Your task to perform on an android device: Search for sushi restaurants on Maps Image 0: 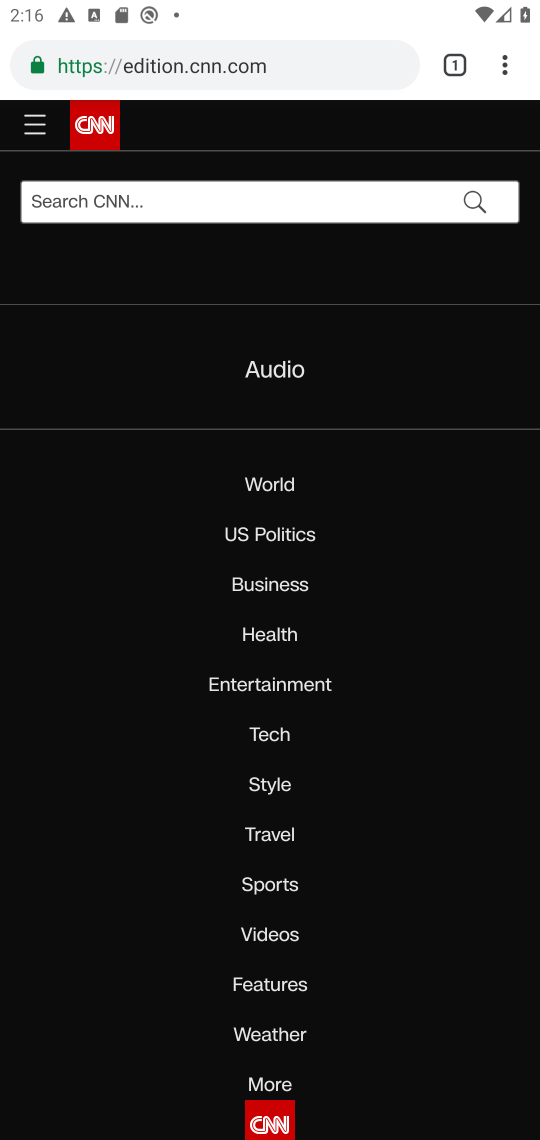
Step 0: press home button
Your task to perform on an android device: Search for sushi restaurants on Maps Image 1: 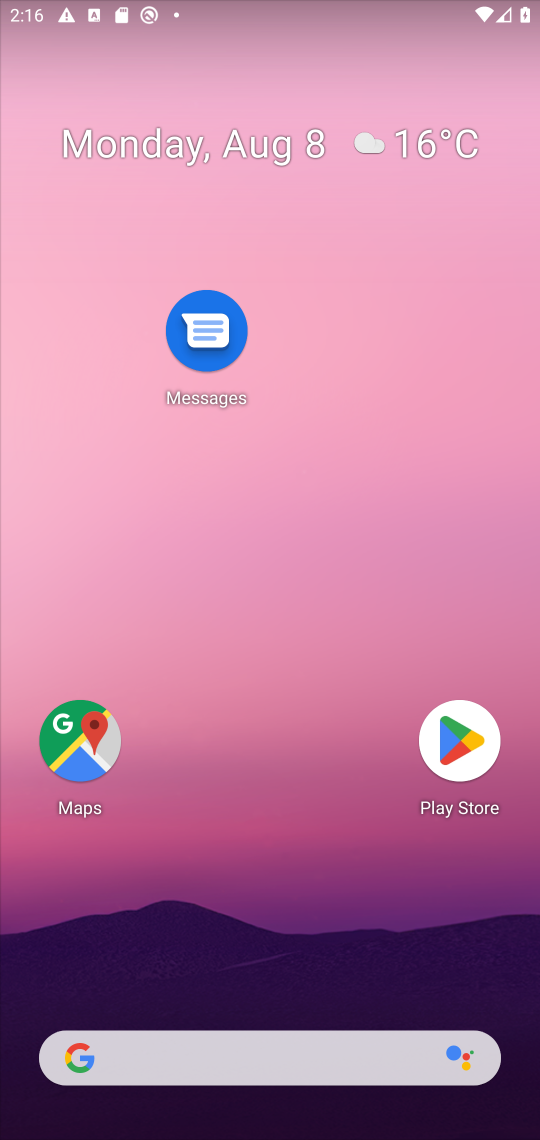
Step 1: drag from (223, 1038) to (362, 209)
Your task to perform on an android device: Search for sushi restaurants on Maps Image 2: 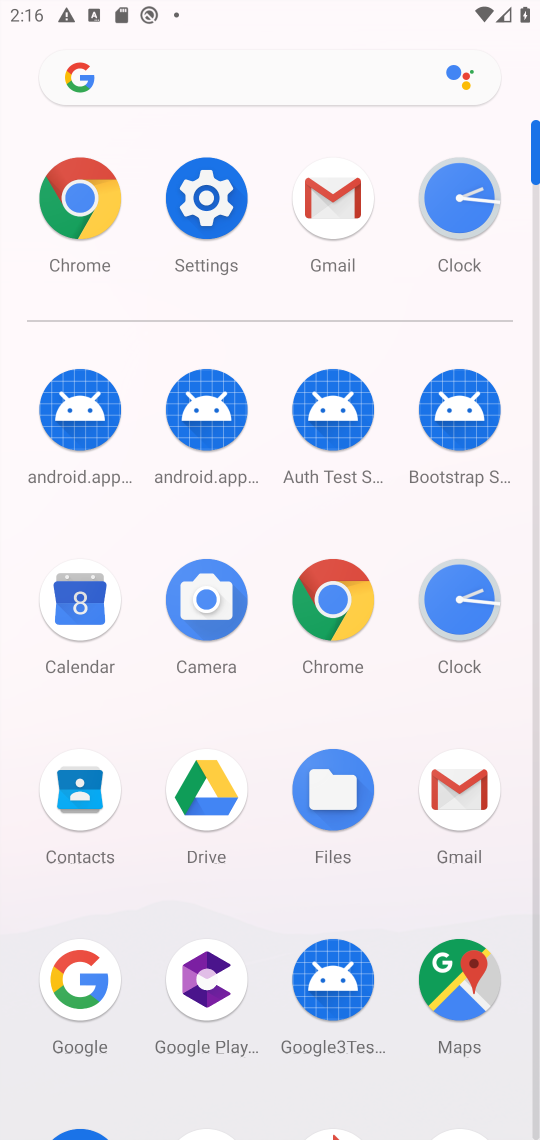
Step 2: click (452, 972)
Your task to perform on an android device: Search for sushi restaurants on Maps Image 3: 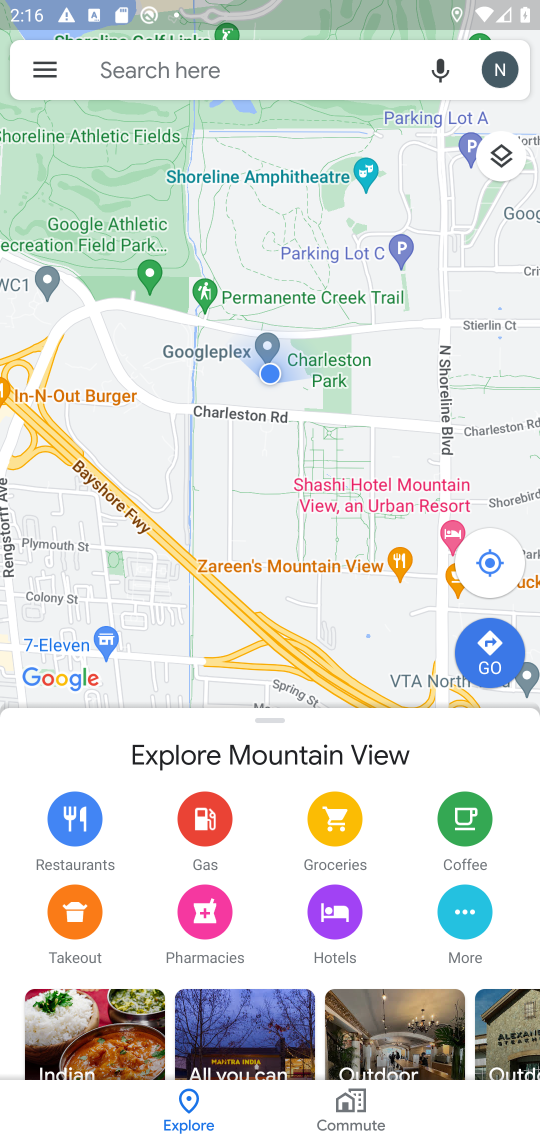
Step 3: click (308, 60)
Your task to perform on an android device: Search for sushi restaurants on Maps Image 4: 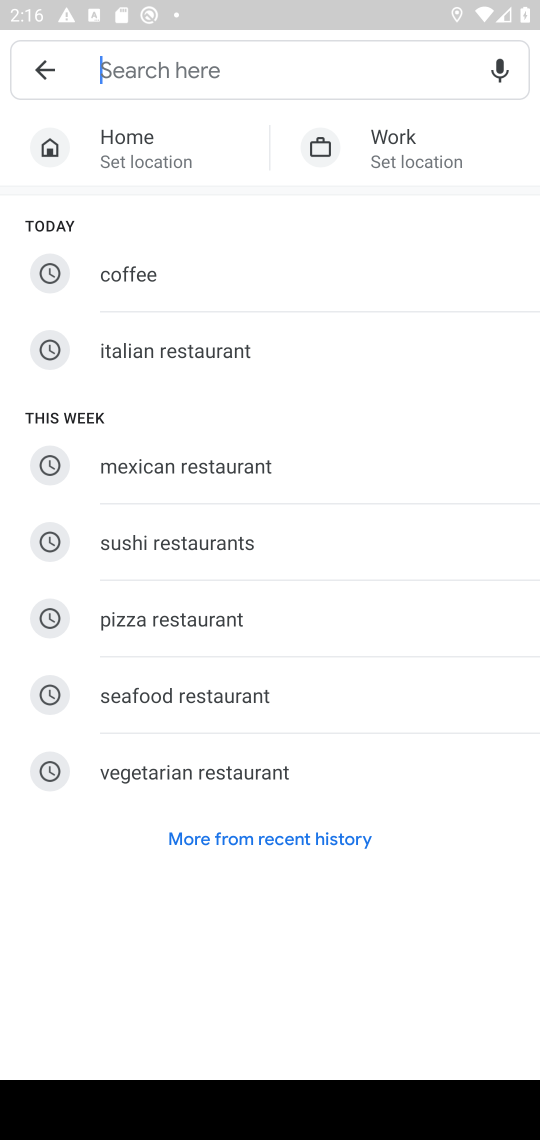
Step 4: click (155, 510)
Your task to perform on an android device: Search for sushi restaurants on Maps Image 5: 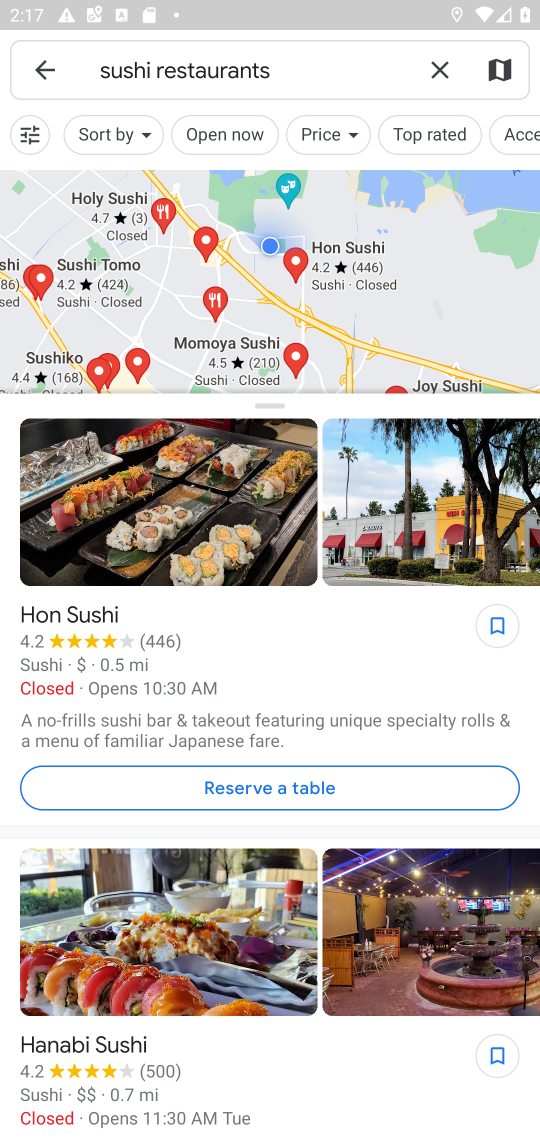
Step 5: task complete